Your task to perform on an android device: Open Google Image 0: 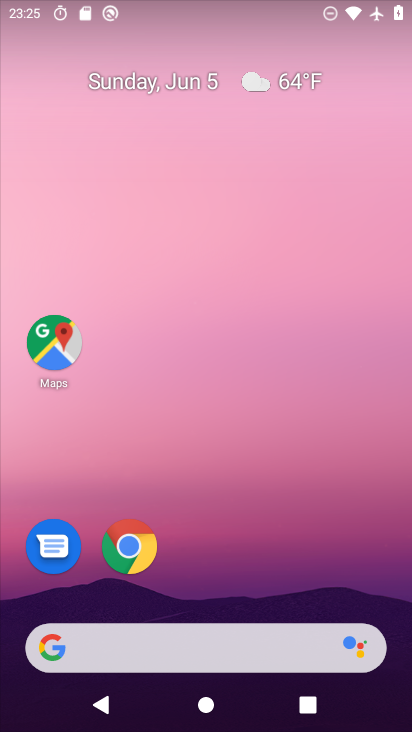
Step 0: drag from (203, 584) to (259, 51)
Your task to perform on an android device: Open Google Image 1: 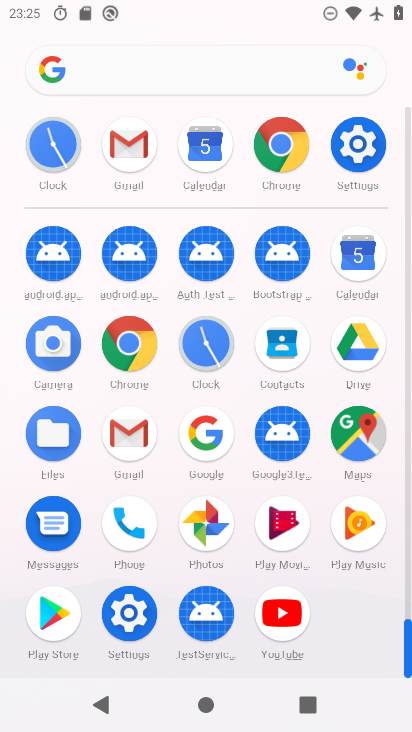
Step 1: click (207, 439)
Your task to perform on an android device: Open Google Image 2: 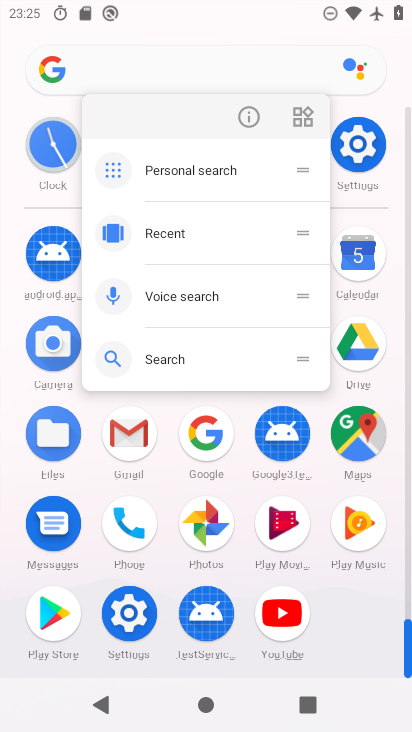
Step 2: click (241, 120)
Your task to perform on an android device: Open Google Image 3: 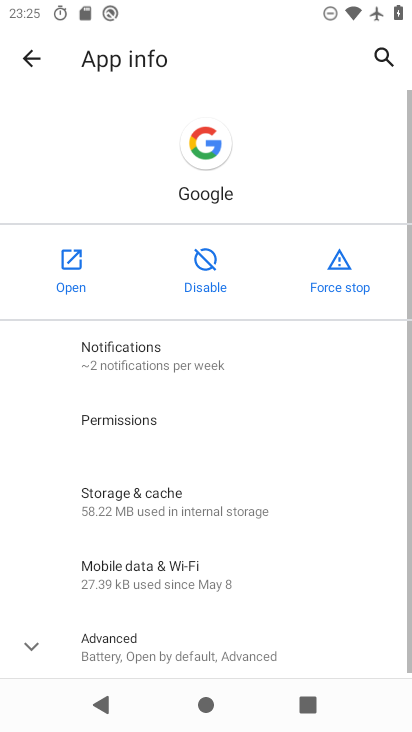
Step 3: drag from (196, 486) to (261, 33)
Your task to perform on an android device: Open Google Image 4: 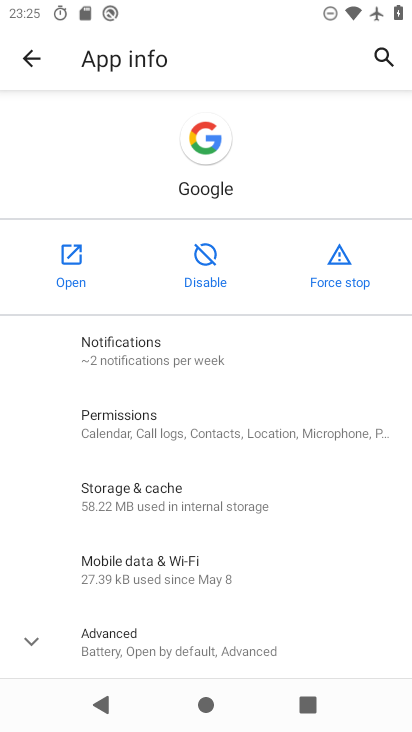
Step 4: click (71, 245)
Your task to perform on an android device: Open Google Image 5: 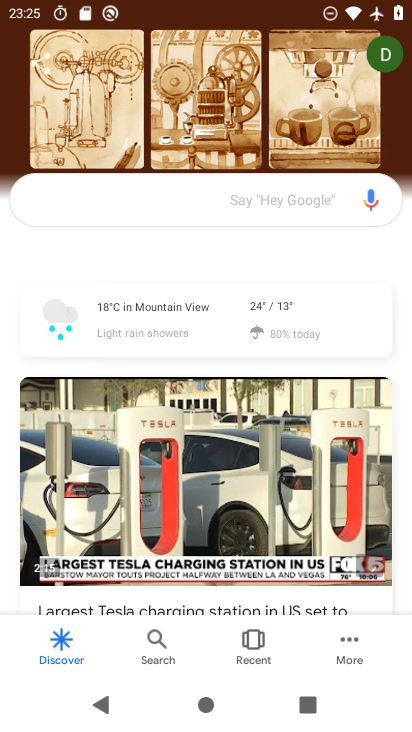
Step 5: task complete